Your task to perform on an android device: Go to sound settings Image 0: 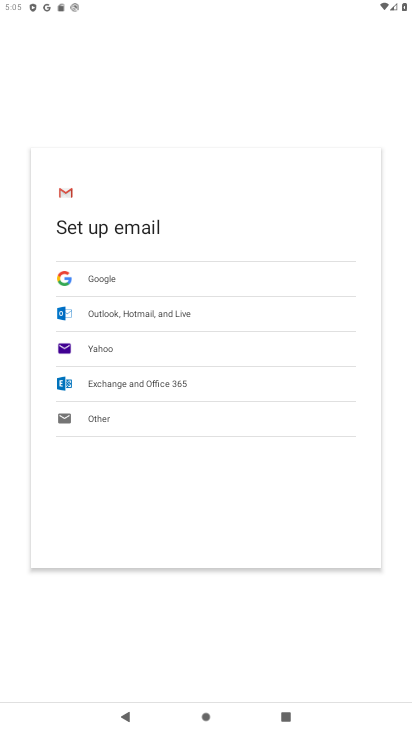
Step 0: press home button
Your task to perform on an android device: Go to sound settings Image 1: 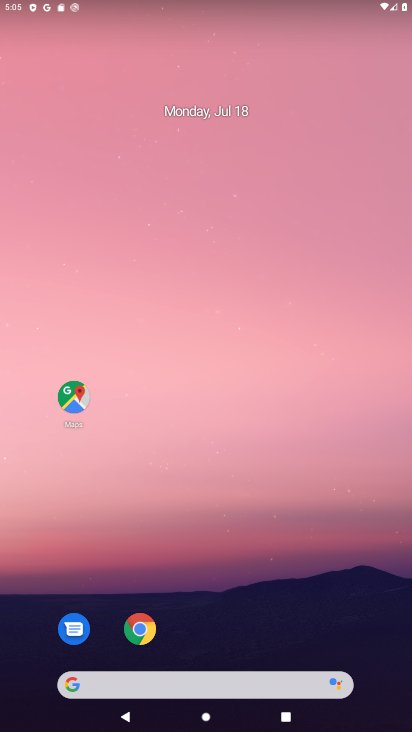
Step 1: drag from (289, 566) to (236, 29)
Your task to perform on an android device: Go to sound settings Image 2: 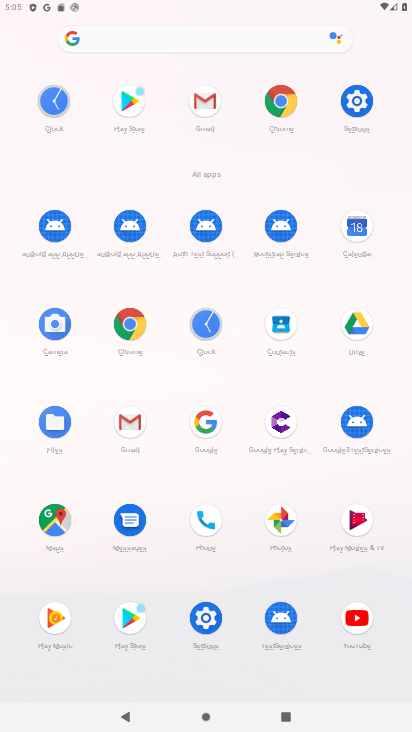
Step 2: click (354, 103)
Your task to perform on an android device: Go to sound settings Image 3: 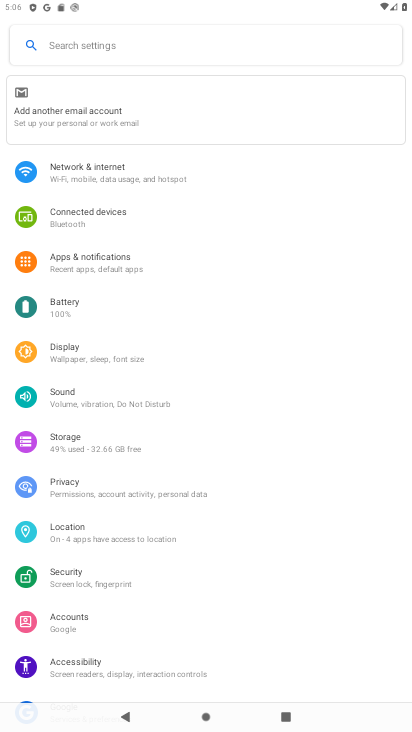
Step 3: click (90, 397)
Your task to perform on an android device: Go to sound settings Image 4: 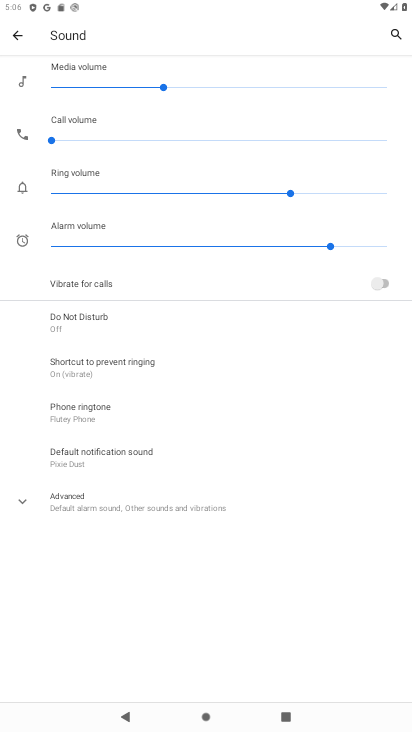
Step 4: task complete